Your task to perform on an android device: create a new album in the google photos Image 0: 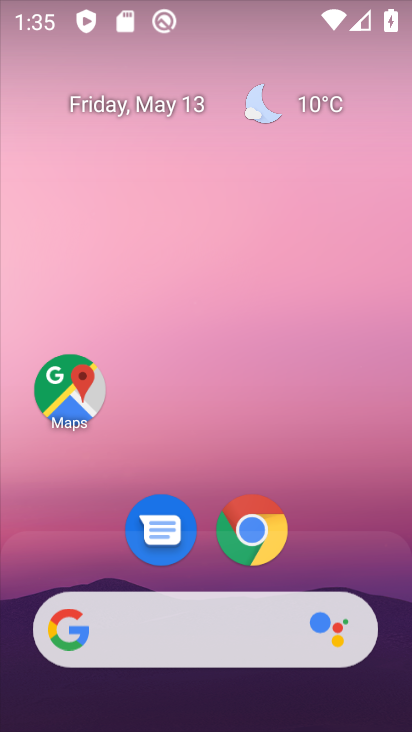
Step 0: drag from (219, 584) to (199, 7)
Your task to perform on an android device: create a new album in the google photos Image 1: 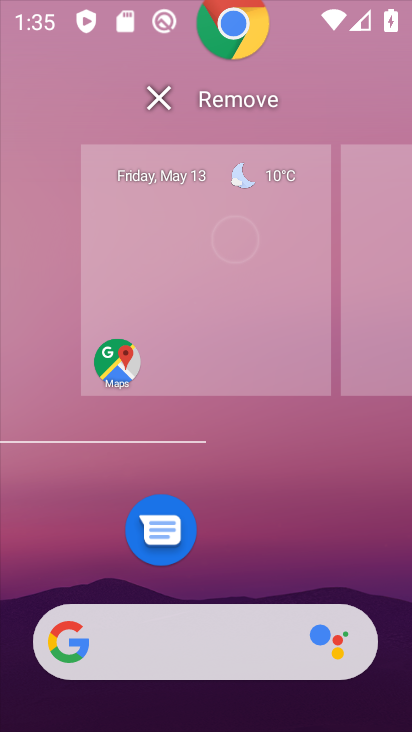
Step 1: drag from (217, 559) to (265, 1)
Your task to perform on an android device: create a new album in the google photos Image 2: 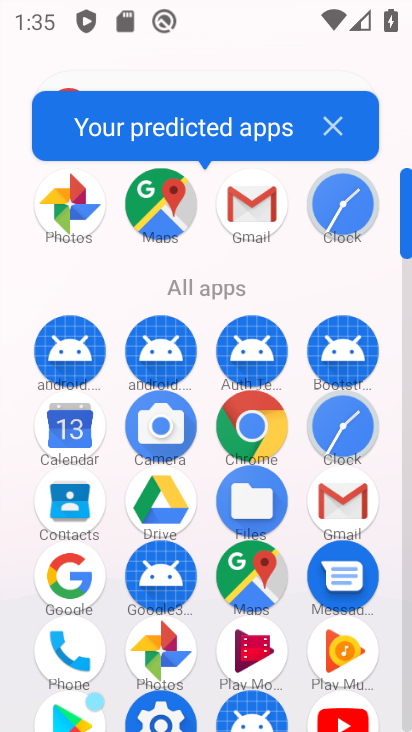
Step 2: click (168, 641)
Your task to perform on an android device: create a new album in the google photos Image 3: 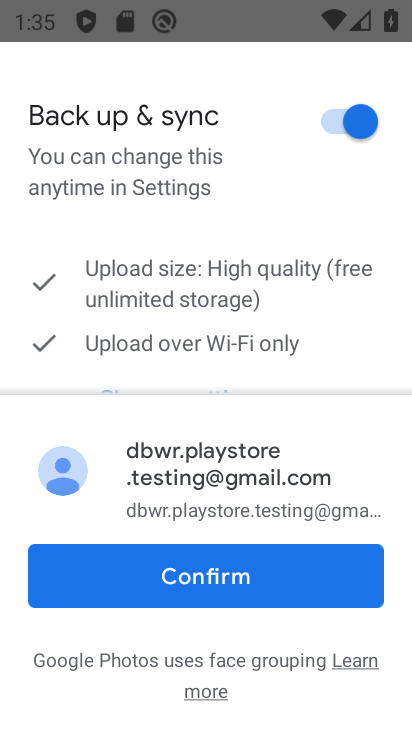
Step 3: click (194, 581)
Your task to perform on an android device: create a new album in the google photos Image 4: 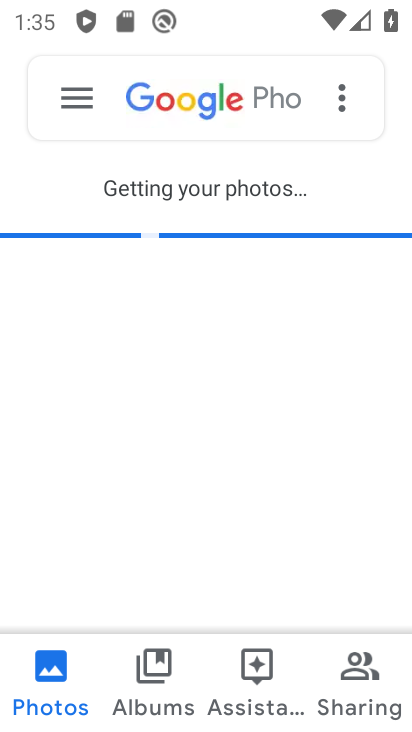
Step 4: click (132, 664)
Your task to perform on an android device: create a new album in the google photos Image 5: 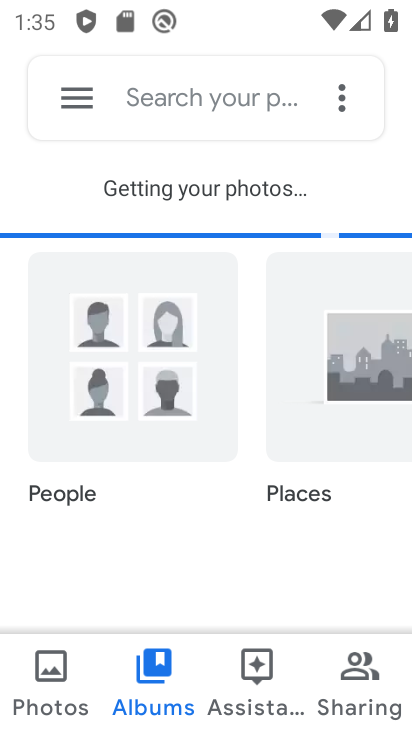
Step 5: click (62, 675)
Your task to perform on an android device: create a new album in the google photos Image 6: 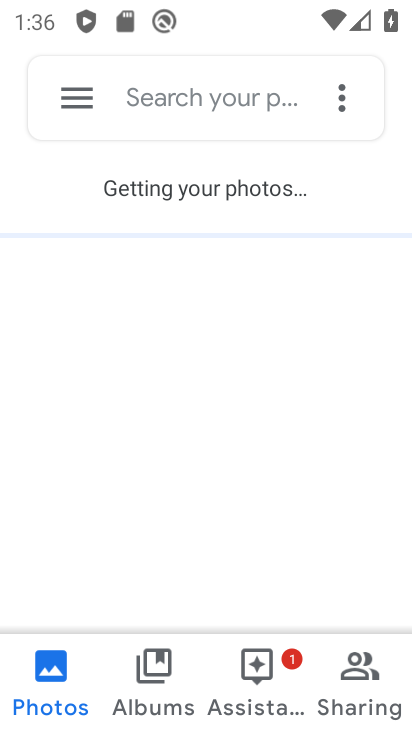
Step 6: click (126, 675)
Your task to perform on an android device: create a new album in the google photos Image 7: 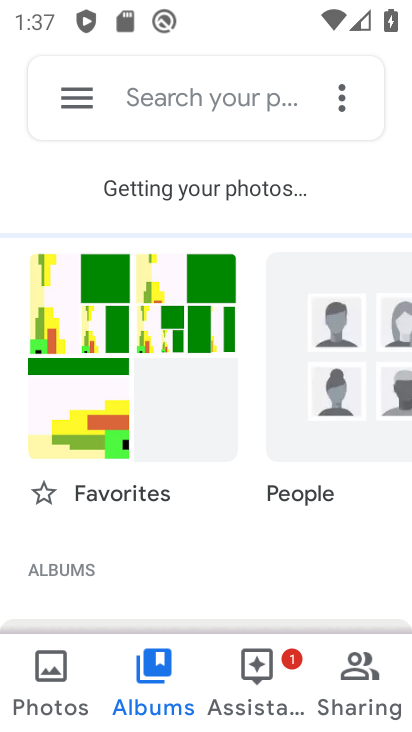
Step 7: click (54, 664)
Your task to perform on an android device: create a new album in the google photos Image 8: 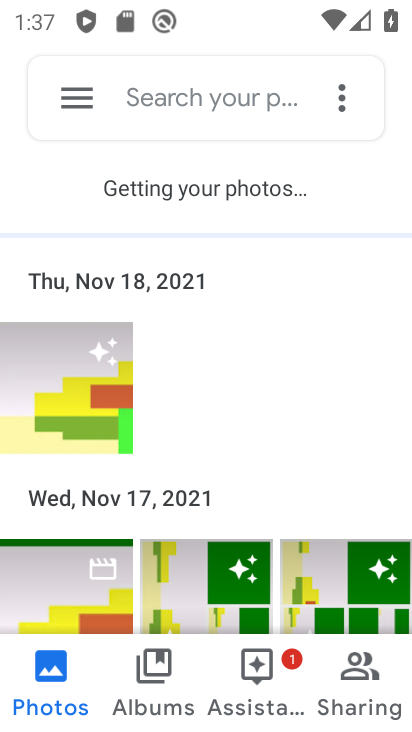
Step 8: click (88, 371)
Your task to perform on an android device: create a new album in the google photos Image 9: 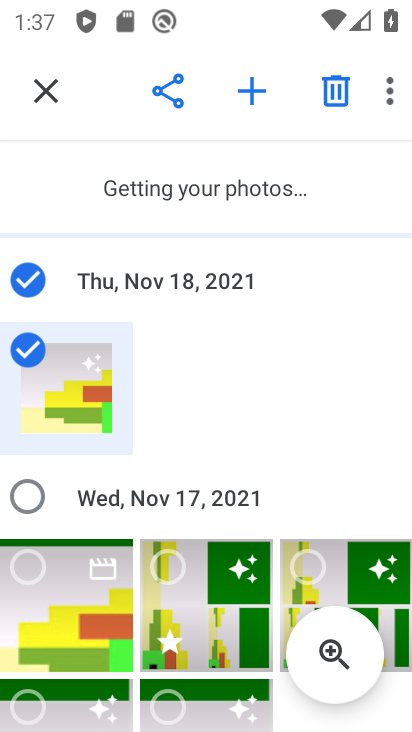
Step 9: click (102, 572)
Your task to perform on an android device: create a new album in the google photos Image 10: 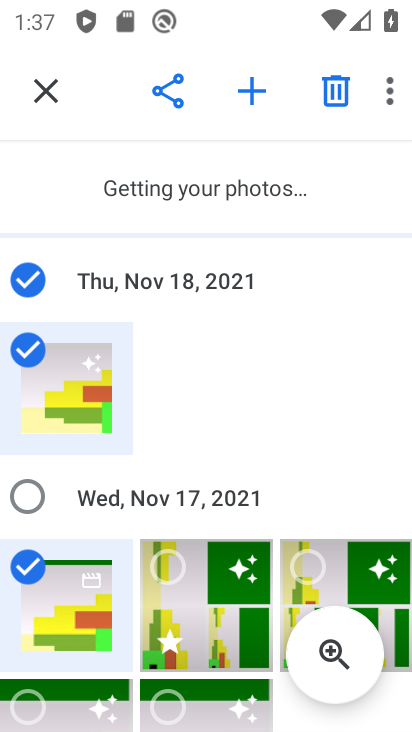
Step 10: click (248, 97)
Your task to perform on an android device: create a new album in the google photos Image 11: 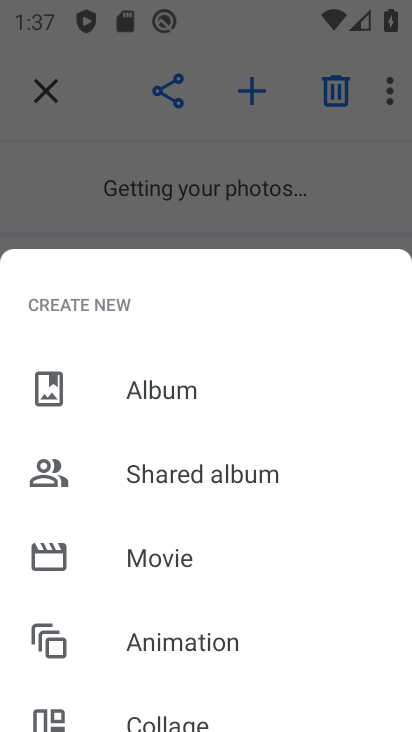
Step 11: click (165, 395)
Your task to perform on an android device: create a new album in the google photos Image 12: 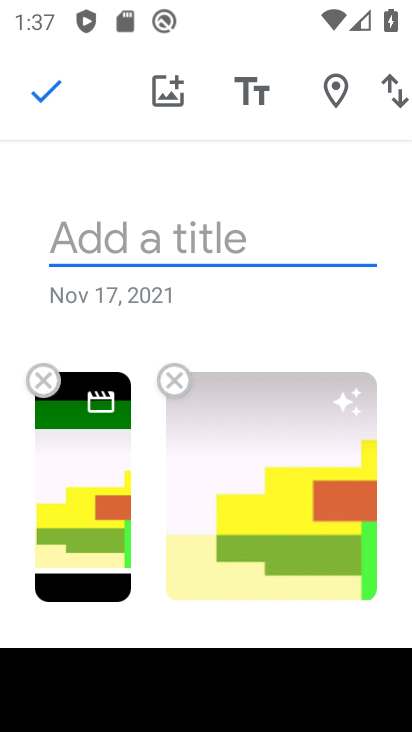
Step 12: type "bh"
Your task to perform on an android device: create a new album in the google photos Image 13: 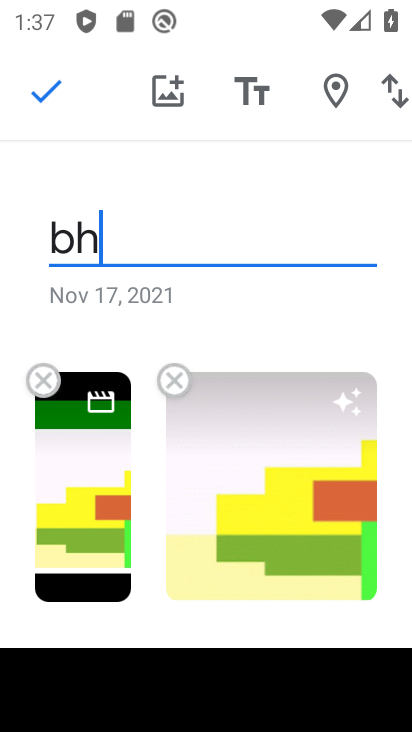
Step 13: type ""
Your task to perform on an android device: create a new album in the google photos Image 14: 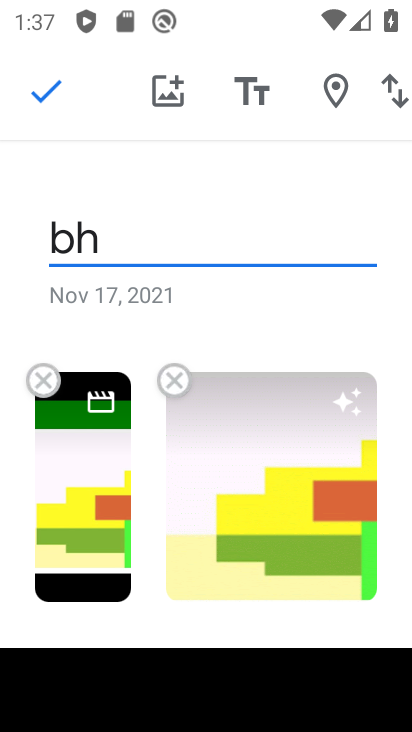
Step 14: click (53, 69)
Your task to perform on an android device: create a new album in the google photos Image 15: 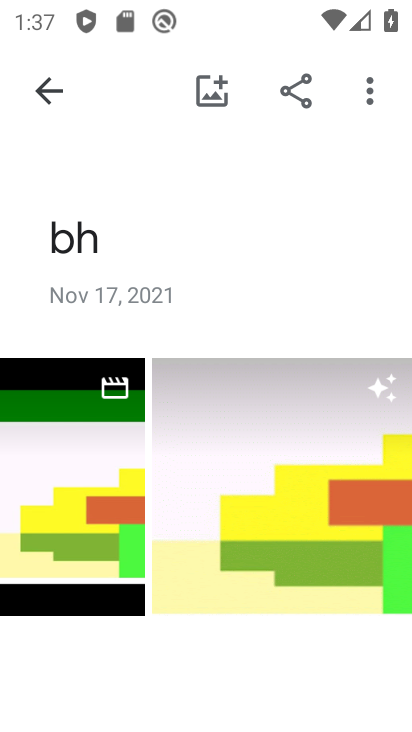
Step 15: task complete